Your task to perform on an android device: Check the weather Image 0: 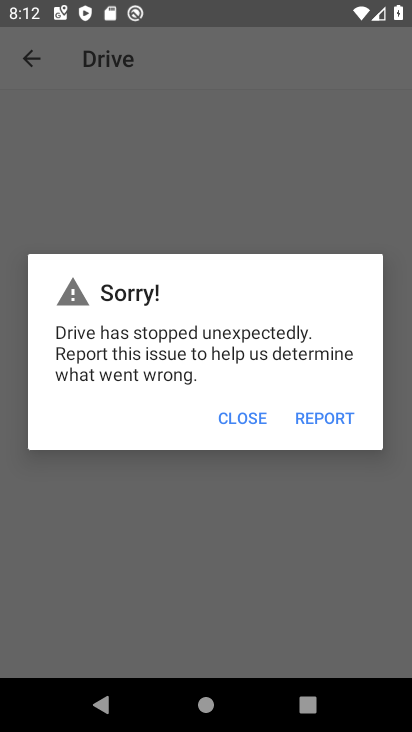
Step 0: press home button
Your task to perform on an android device: Check the weather Image 1: 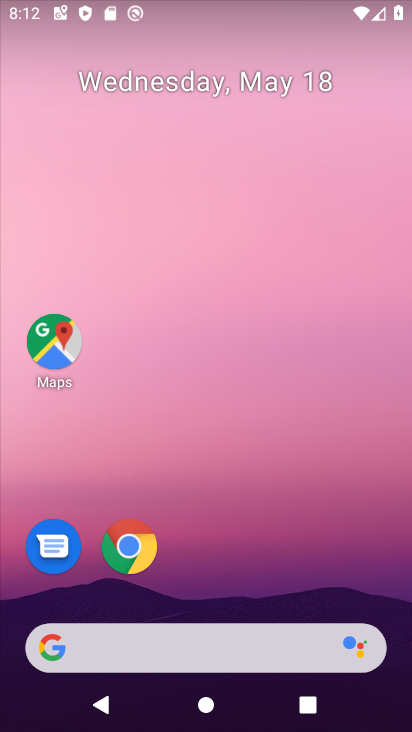
Step 1: drag from (267, 673) to (301, 195)
Your task to perform on an android device: Check the weather Image 2: 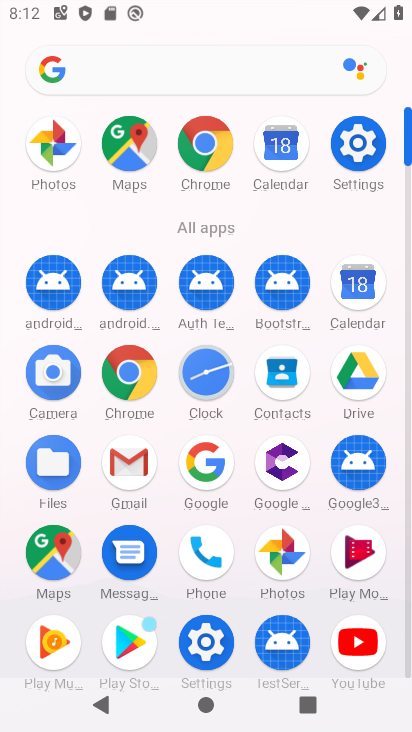
Step 2: click (127, 70)
Your task to perform on an android device: Check the weather Image 3: 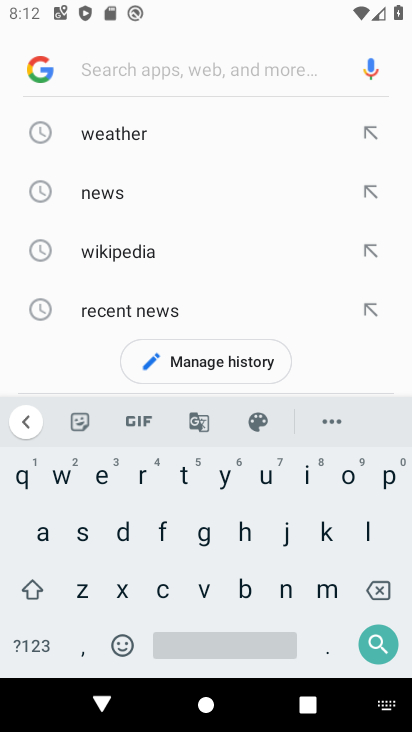
Step 3: click (98, 147)
Your task to perform on an android device: Check the weather Image 4: 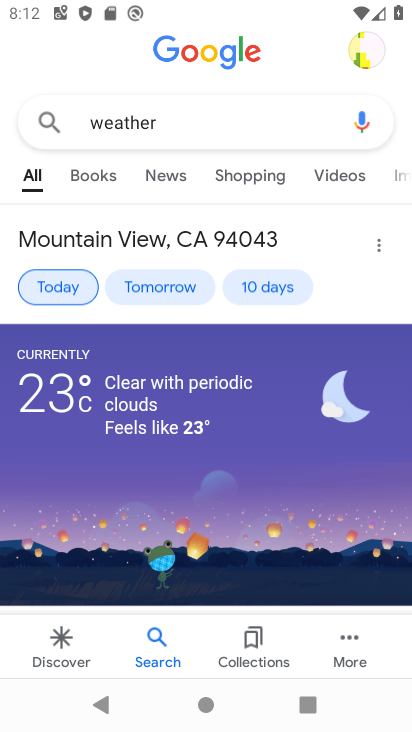
Step 4: task complete